Your task to perform on an android device: Search for pizza restaurants on Maps Image 0: 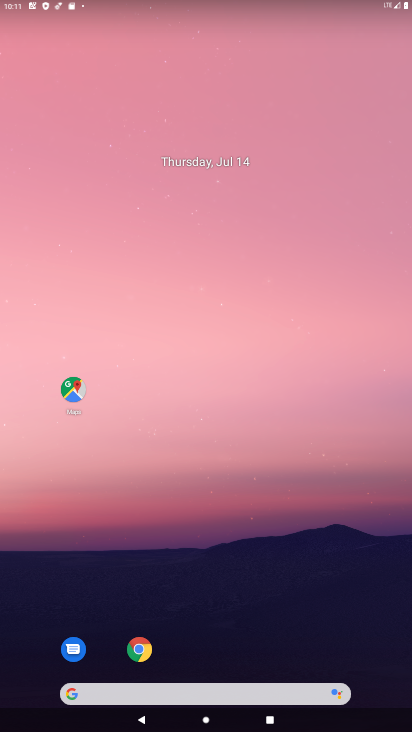
Step 0: click (69, 383)
Your task to perform on an android device: Search for pizza restaurants on Maps Image 1: 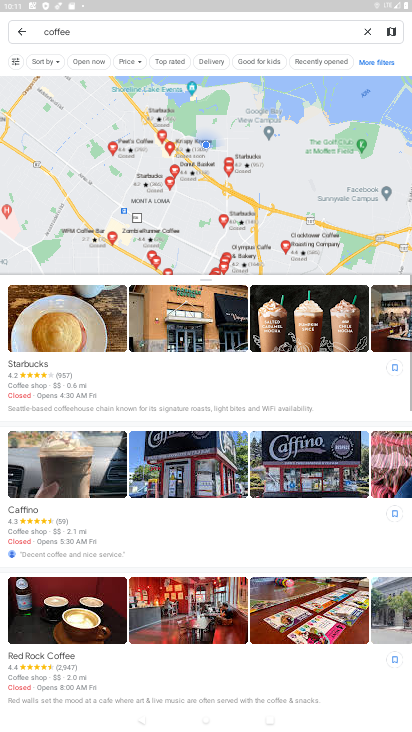
Step 1: click (368, 33)
Your task to perform on an android device: Search for pizza restaurants on Maps Image 2: 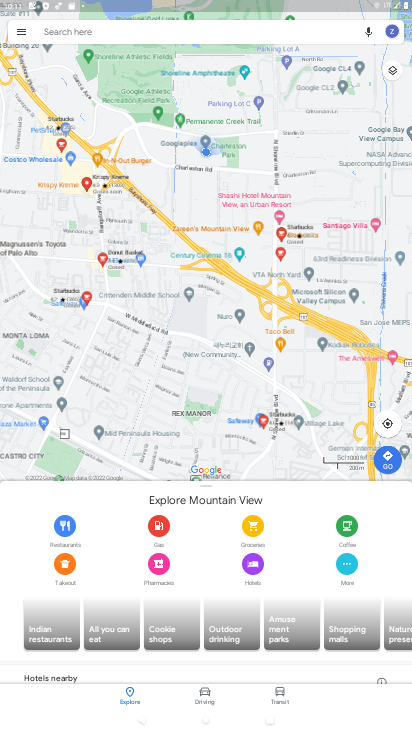
Step 2: click (301, 32)
Your task to perform on an android device: Search for pizza restaurants on Maps Image 3: 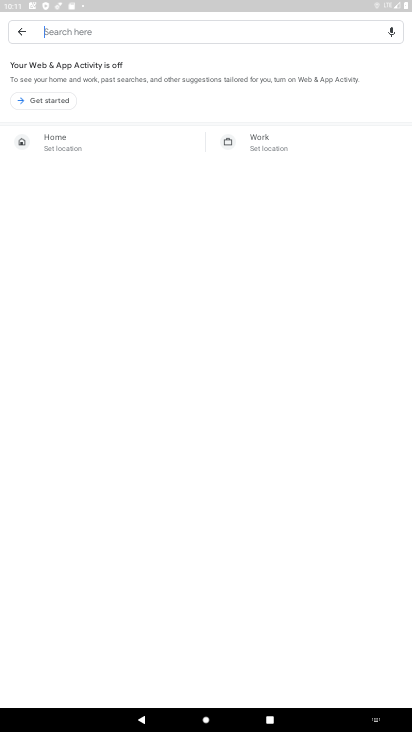
Step 3: type "pizza restaurants"
Your task to perform on an android device: Search for pizza restaurants on Maps Image 4: 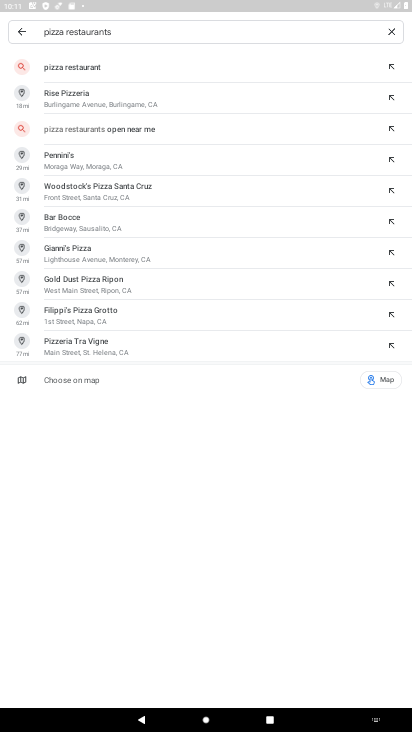
Step 4: click (95, 71)
Your task to perform on an android device: Search for pizza restaurants on Maps Image 5: 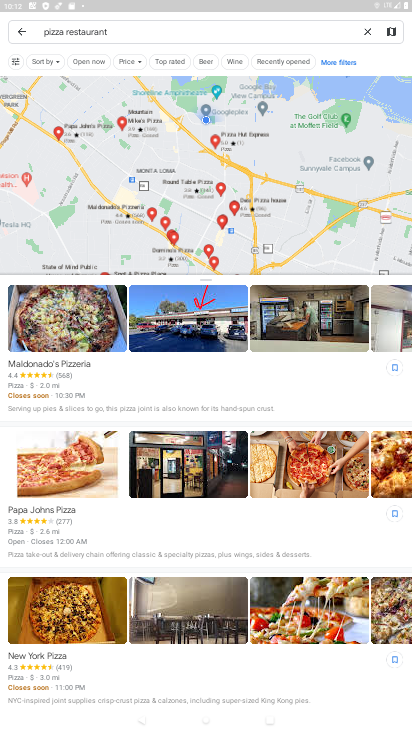
Step 5: task complete